Your task to perform on an android device: change the clock style Image 0: 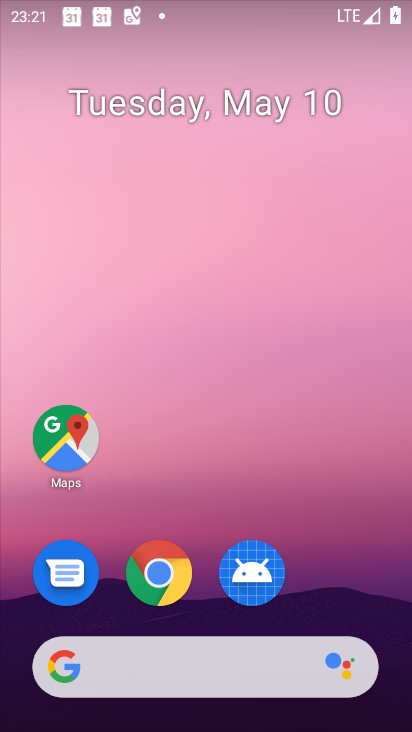
Step 0: drag from (336, 502) to (255, 114)
Your task to perform on an android device: change the clock style Image 1: 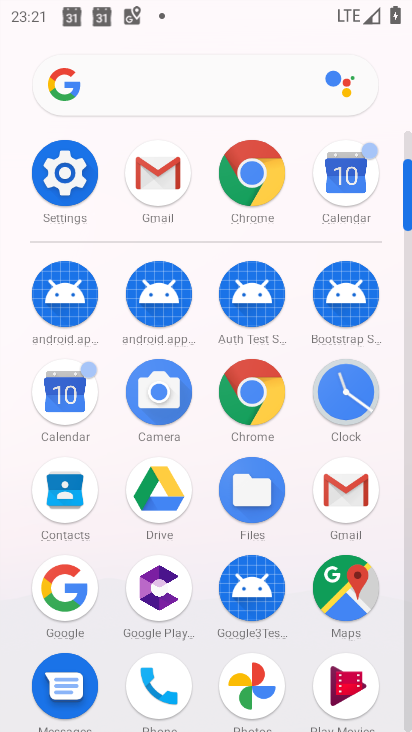
Step 1: click (345, 402)
Your task to perform on an android device: change the clock style Image 2: 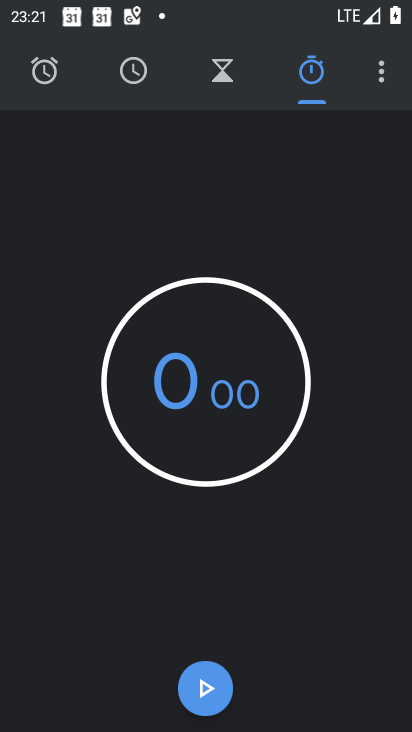
Step 2: click (385, 71)
Your task to perform on an android device: change the clock style Image 3: 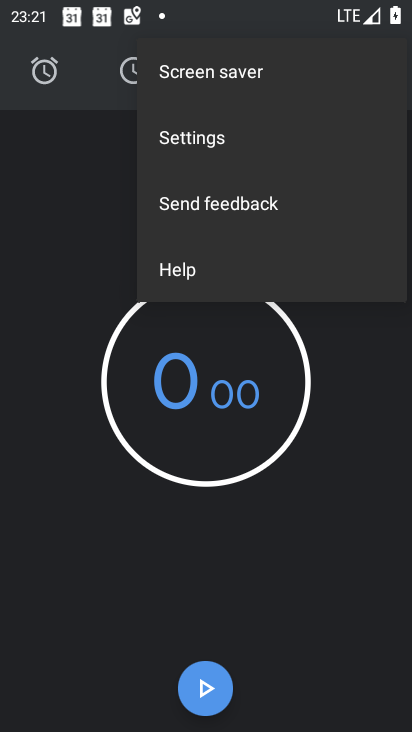
Step 3: click (196, 147)
Your task to perform on an android device: change the clock style Image 4: 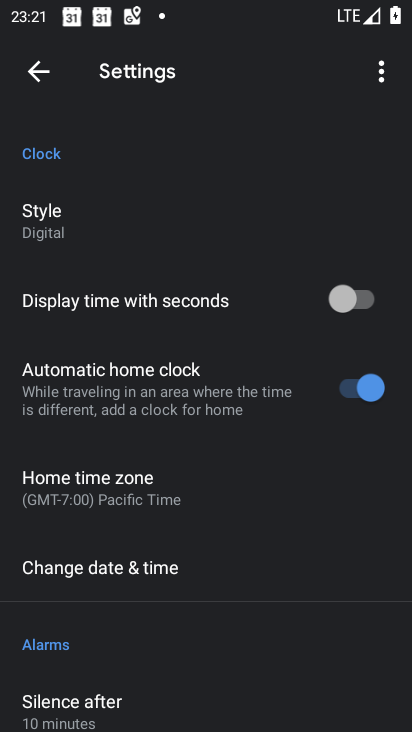
Step 4: click (48, 212)
Your task to perform on an android device: change the clock style Image 5: 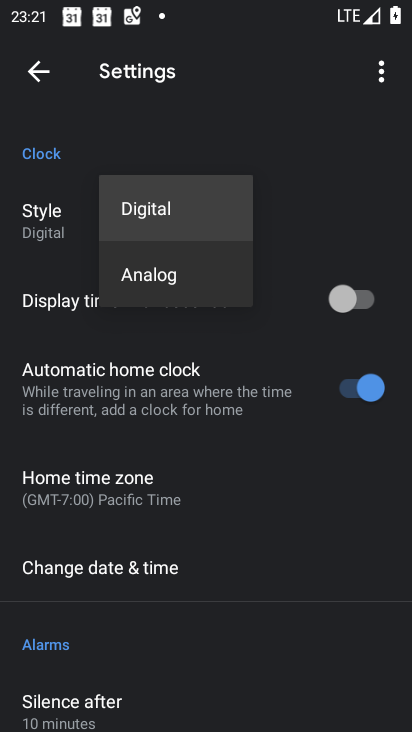
Step 5: click (145, 275)
Your task to perform on an android device: change the clock style Image 6: 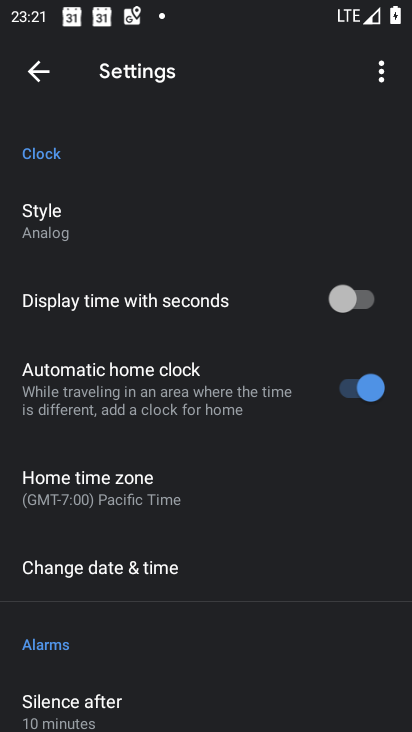
Step 6: task complete